Your task to perform on an android device: open the mobile data screen to see how much data has been used Image 0: 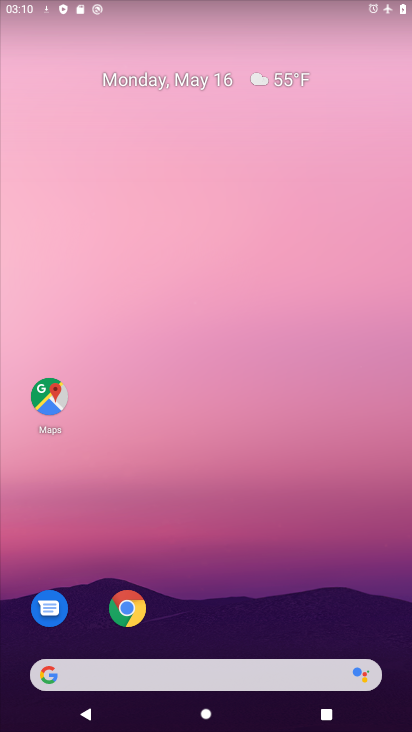
Step 0: drag from (224, 626) to (194, 178)
Your task to perform on an android device: open the mobile data screen to see how much data has been used Image 1: 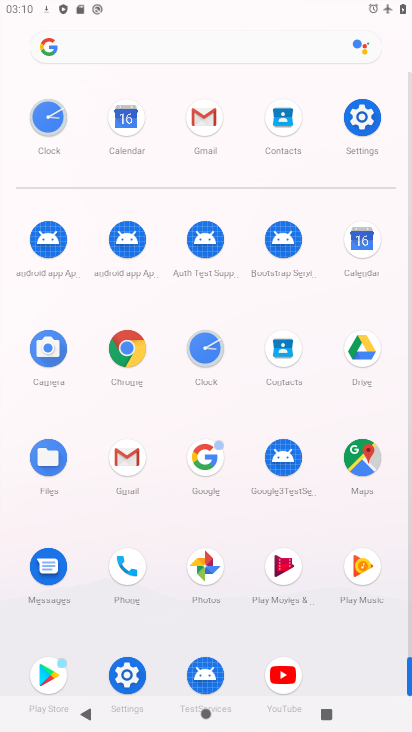
Step 1: click (348, 129)
Your task to perform on an android device: open the mobile data screen to see how much data has been used Image 2: 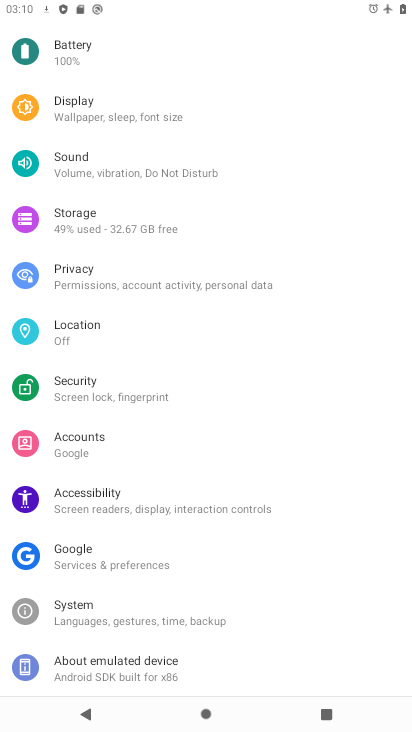
Step 2: drag from (180, 239) to (199, 362)
Your task to perform on an android device: open the mobile data screen to see how much data has been used Image 3: 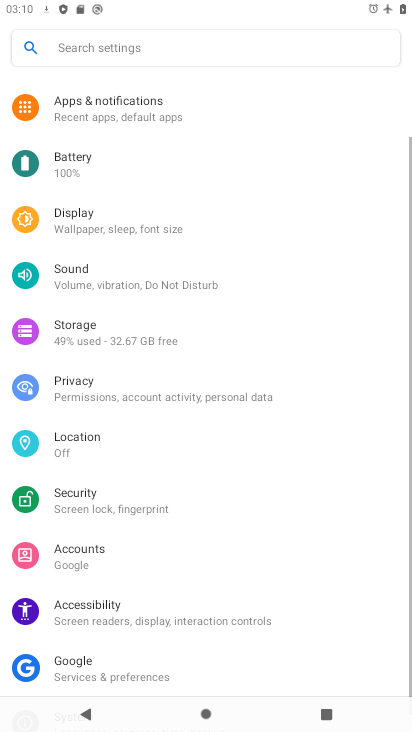
Step 3: drag from (156, 189) to (196, 425)
Your task to perform on an android device: open the mobile data screen to see how much data has been used Image 4: 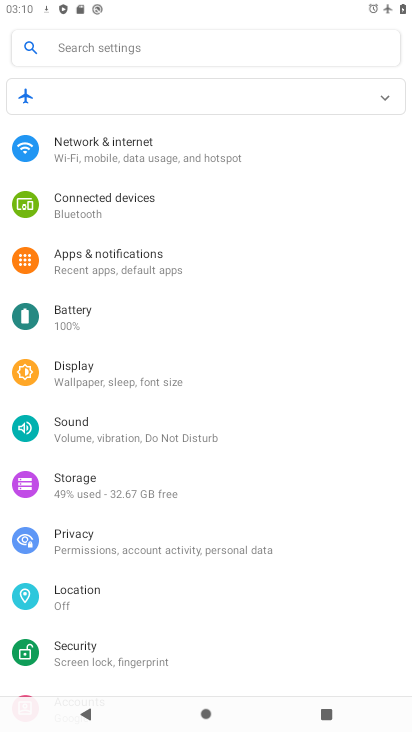
Step 4: click (152, 162)
Your task to perform on an android device: open the mobile data screen to see how much data has been used Image 5: 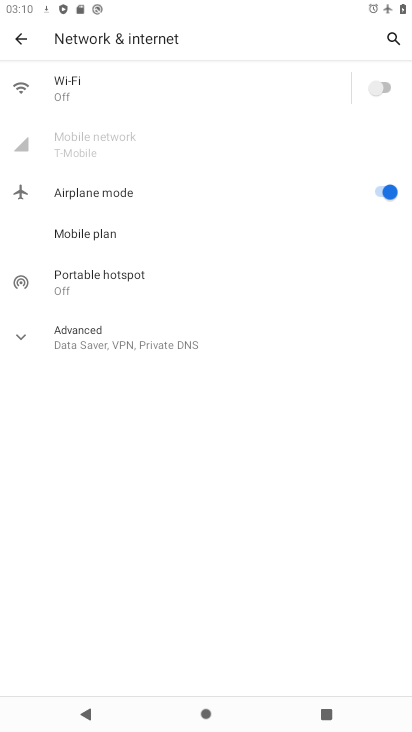
Step 5: click (144, 151)
Your task to perform on an android device: open the mobile data screen to see how much data has been used Image 6: 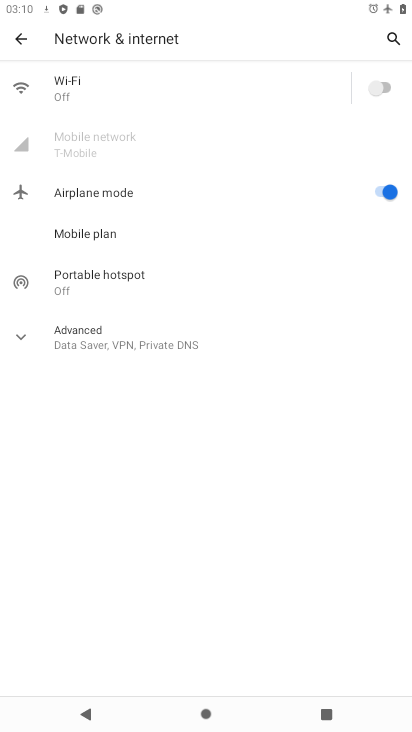
Step 6: click (144, 151)
Your task to perform on an android device: open the mobile data screen to see how much data has been used Image 7: 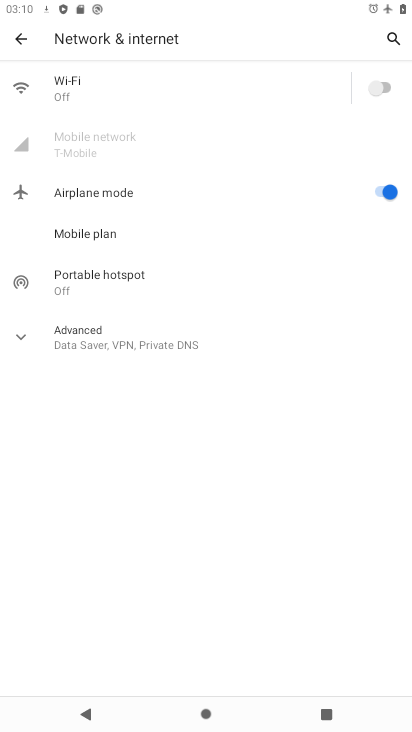
Step 7: task complete